Your task to perform on an android device: When is my next appointment? Image 0: 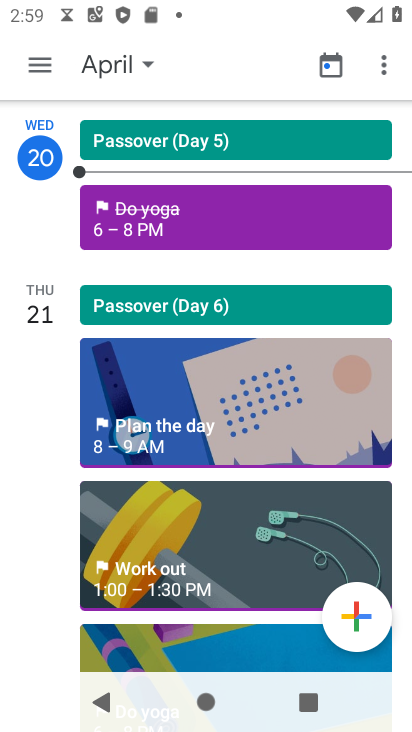
Step 0: press home button
Your task to perform on an android device: When is my next appointment? Image 1: 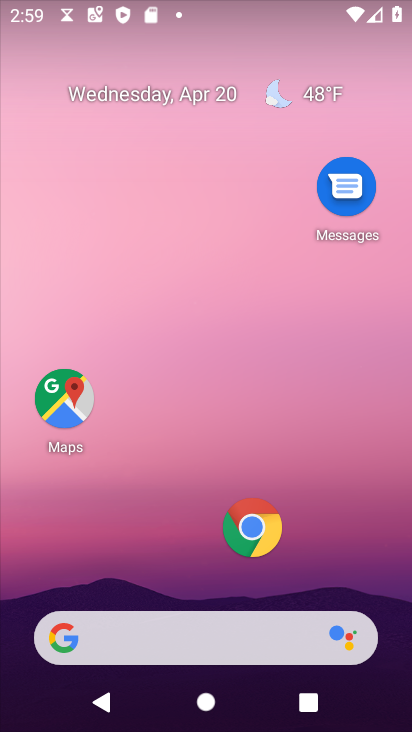
Step 1: drag from (202, 631) to (350, 0)
Your task to perform on an android device: When is my next appointment? Image 2: 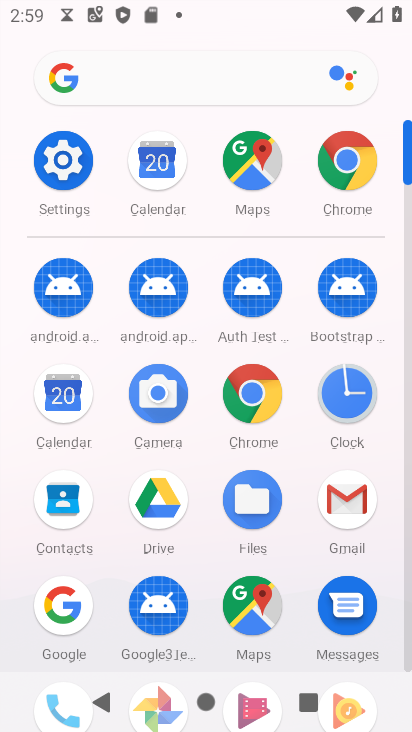
Step 2: click (162, 178)
Your task to perform on an android device: When is my next appointment? Image 3: 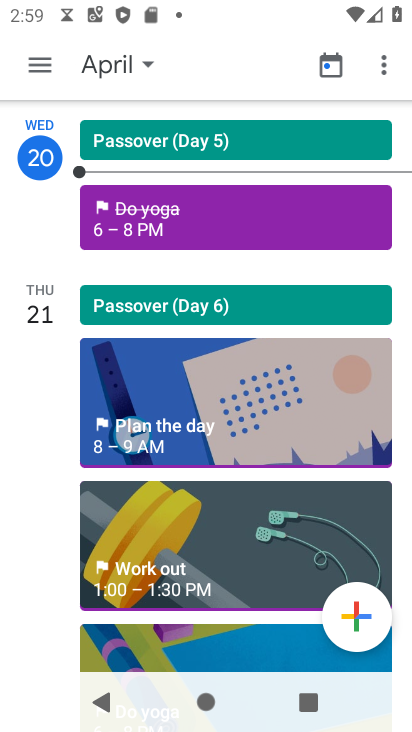
Step 3: click (44, 68)
Your task to perform on an android device: When is my next appointment? Image 4: 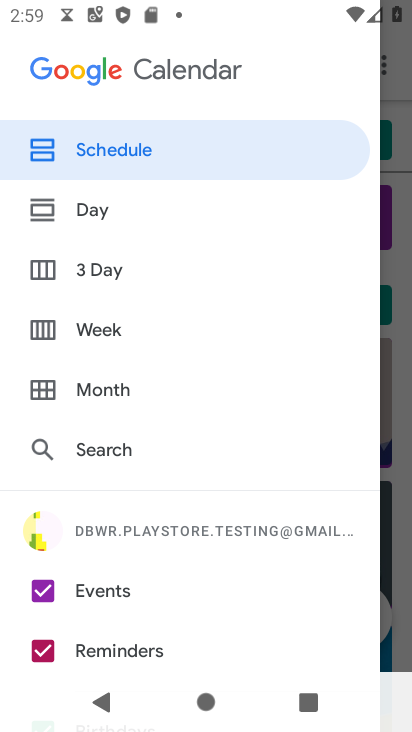
Step 4: click (107, 328)
Your task to perform on an android device: When is my next appointment? Image 5: 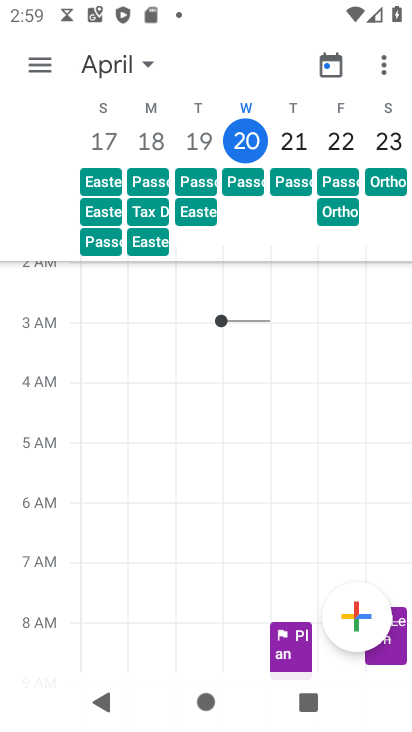
Step 5: click (44, 71)
Your task to perform on an android device: When is my next appointment? Image 6: 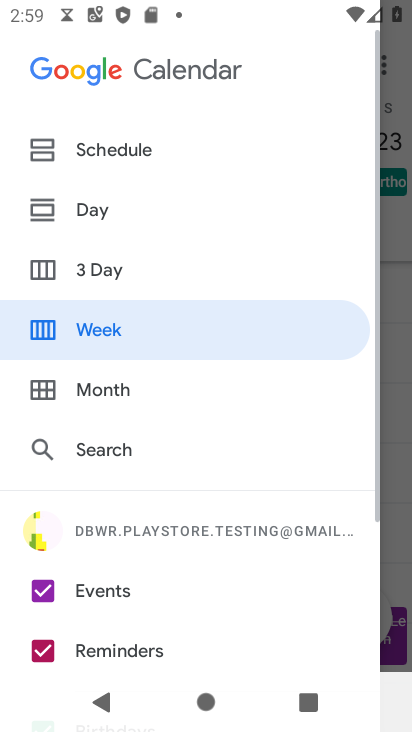
Step 6: click (92, 150)
Your task to perform on an android device: When is my next appointment? Image 7: 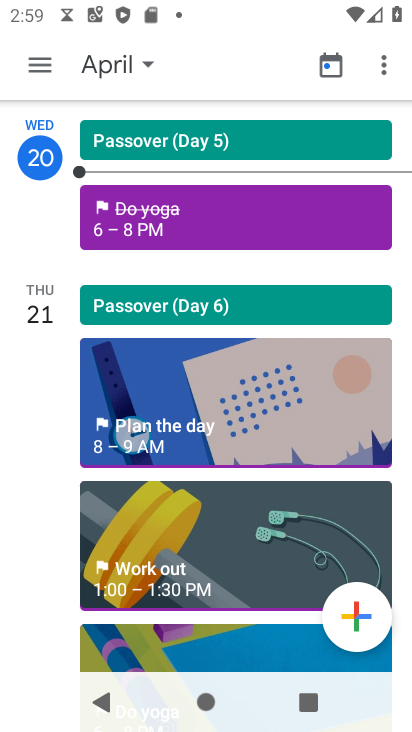
Step 7: click (203, 398)
Your task to perform on an android device: When is my next appointment? Image 8: 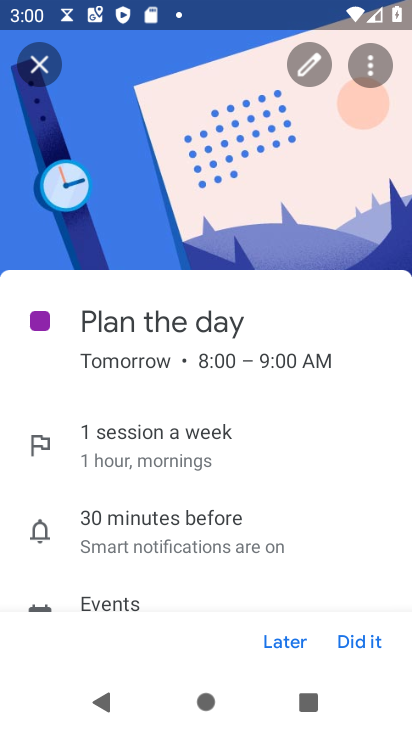
Step 8: task complete